Your task to perform on an android device: Search for razer naga on ebay, select the first entry, add it to the cart, then select checkout. Image 0: 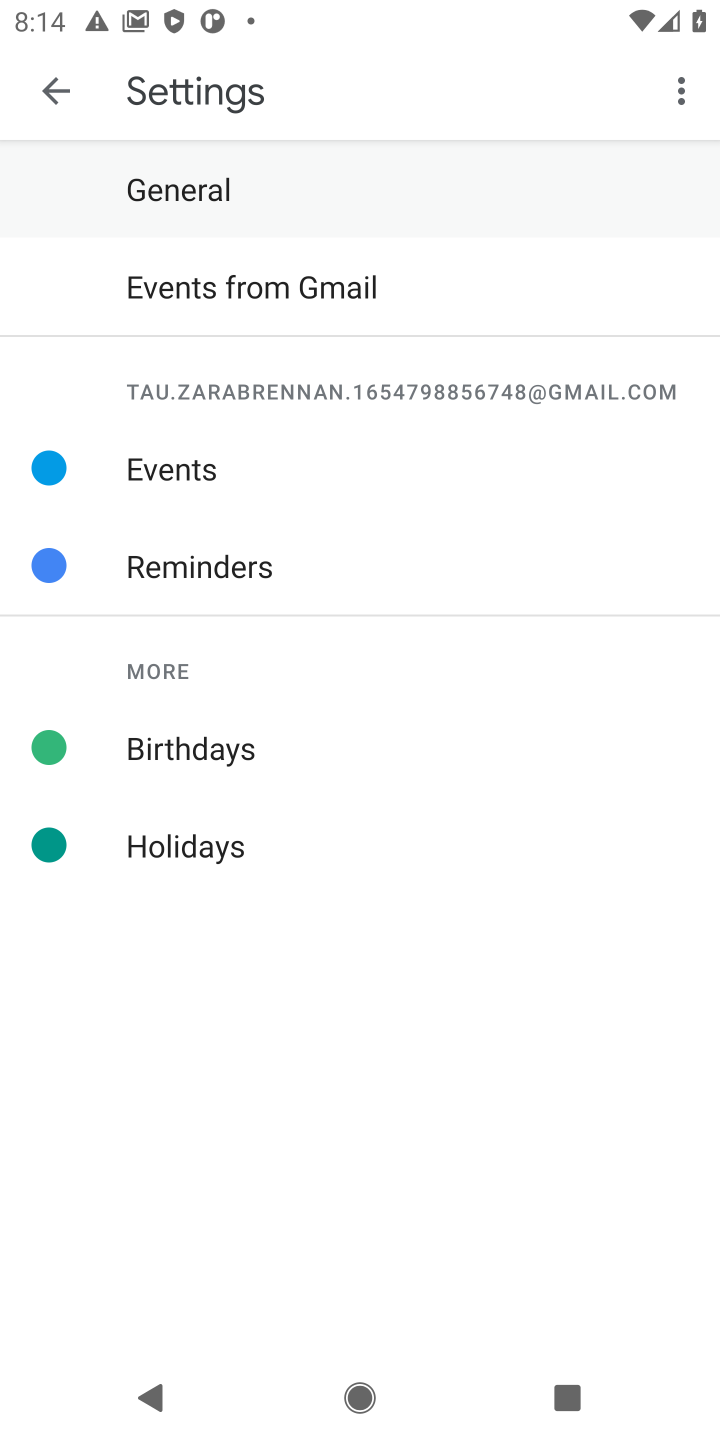
Step 0: press home button
Your task to perform on an android device: Search for razer naga on ebay, select the first entry, add it to the cart, then select checkout. Image 1: 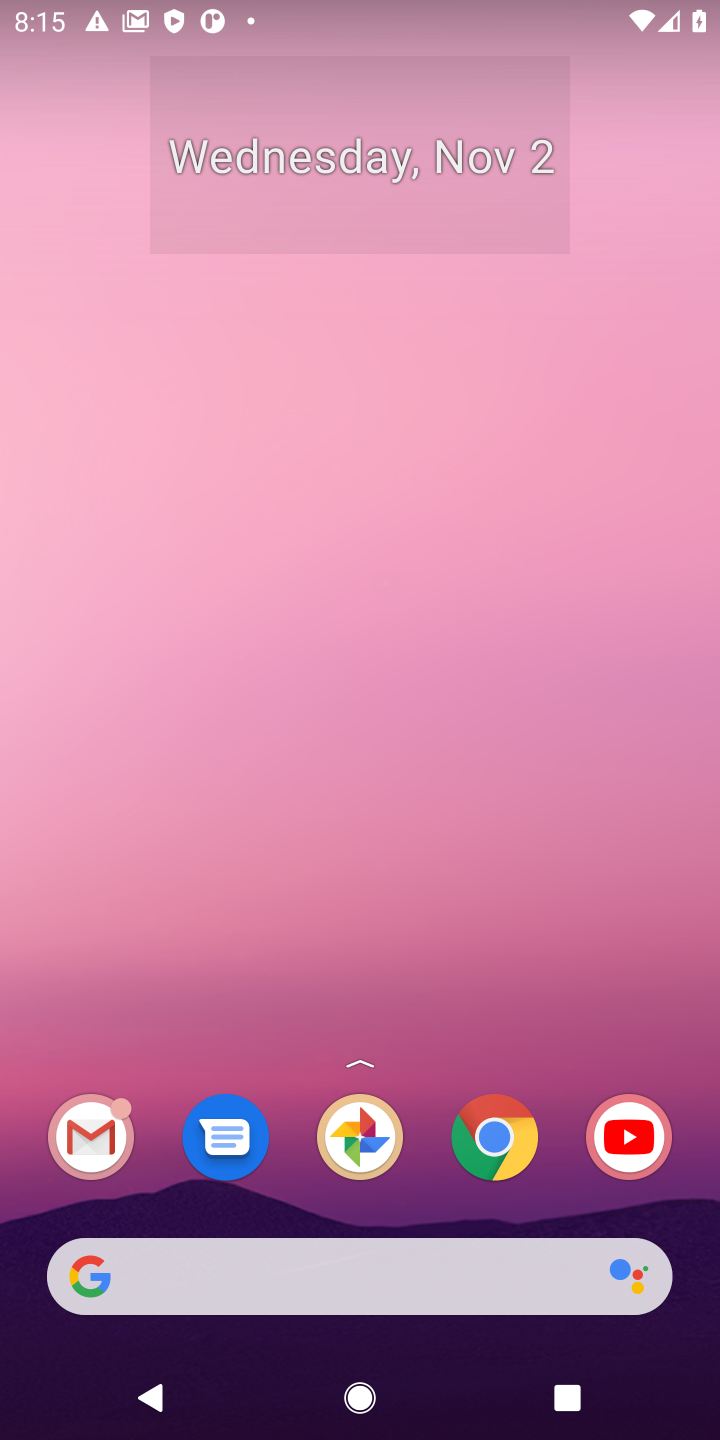
Step 1: click (492, 1132)
Your task to perform on an android device: Search for razer naga on ebay, select the first entry, add it to the cart, then select checkout. Image 2: 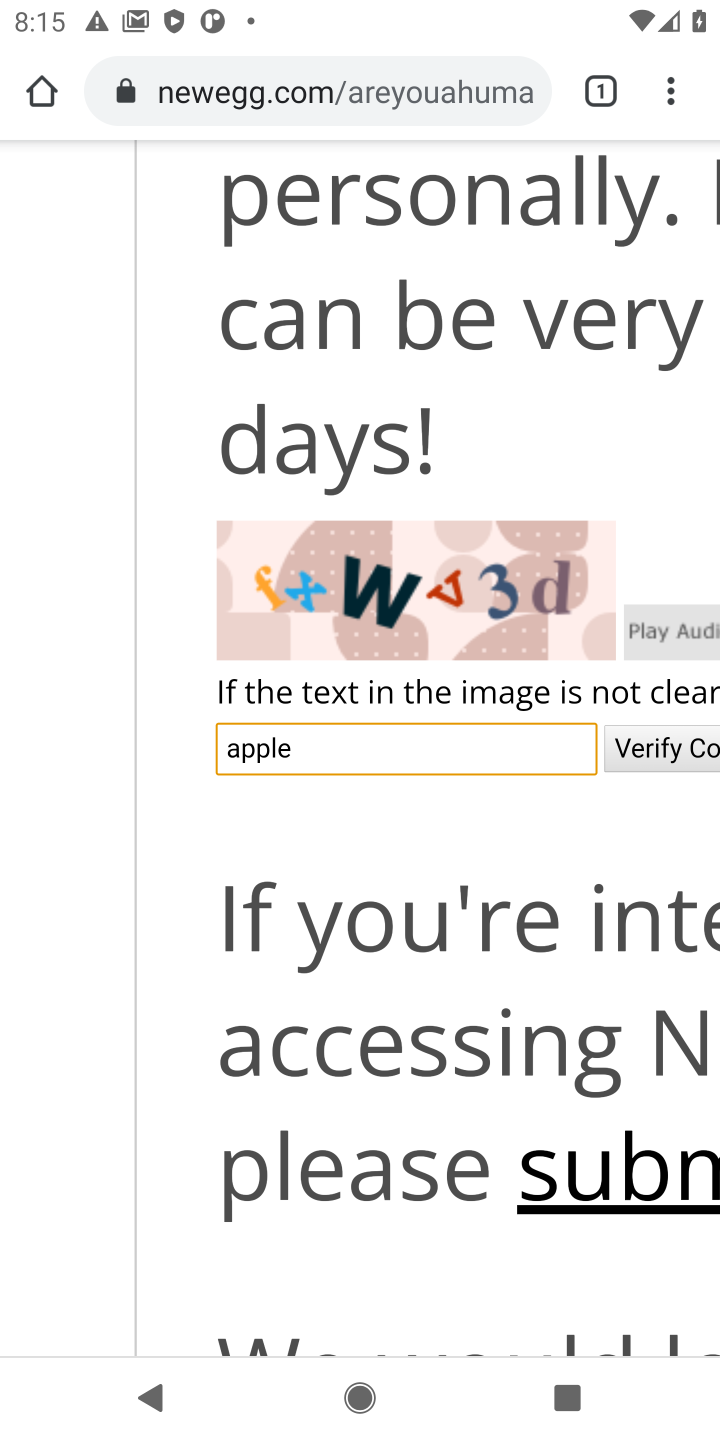
Step 2: click (384, 62)
Your task to perform on an android device: Search for razer naga on ebay, select the first entry, add it to the cart, then select checkout. Image 3: 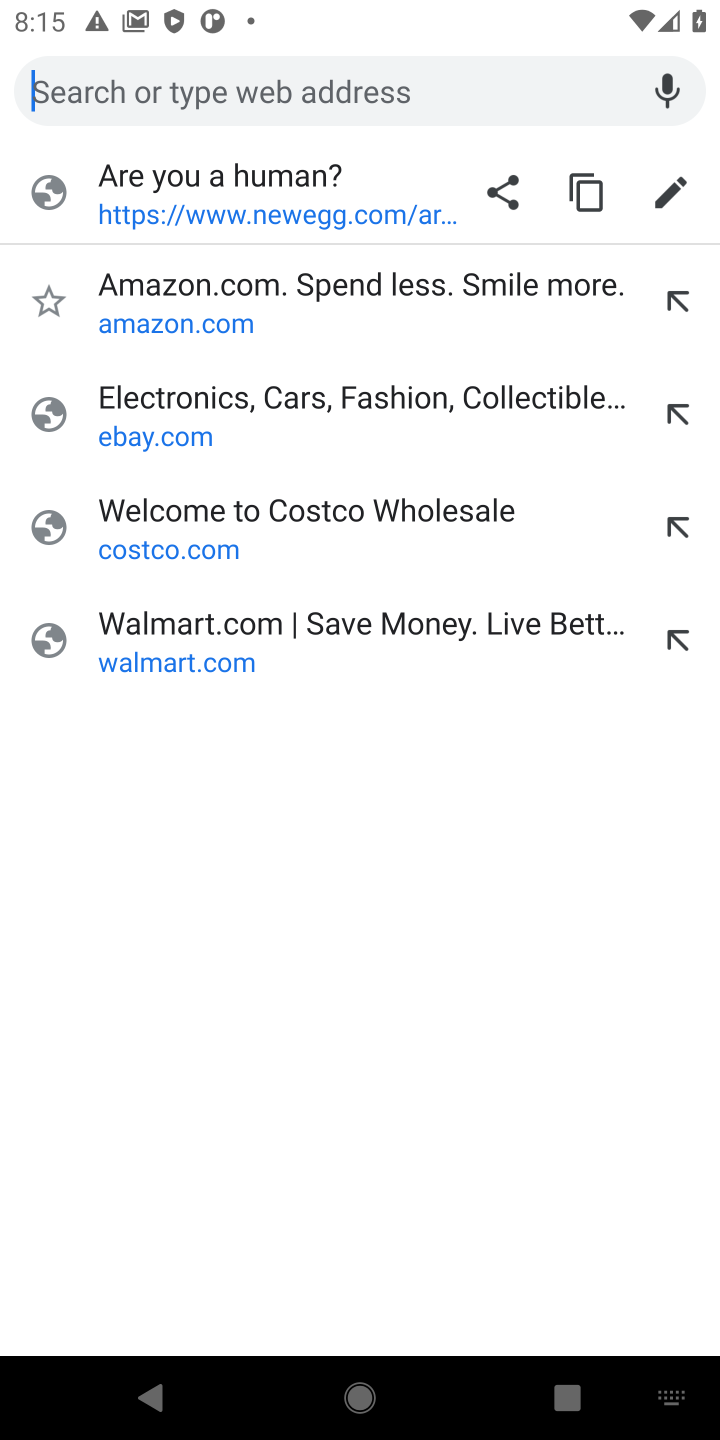
Step 3: click (119, 400)
Your task to perform on an android device: Search for razer naga on ebay, select the first entry, add it to the cart, then select checkout. Image 4: 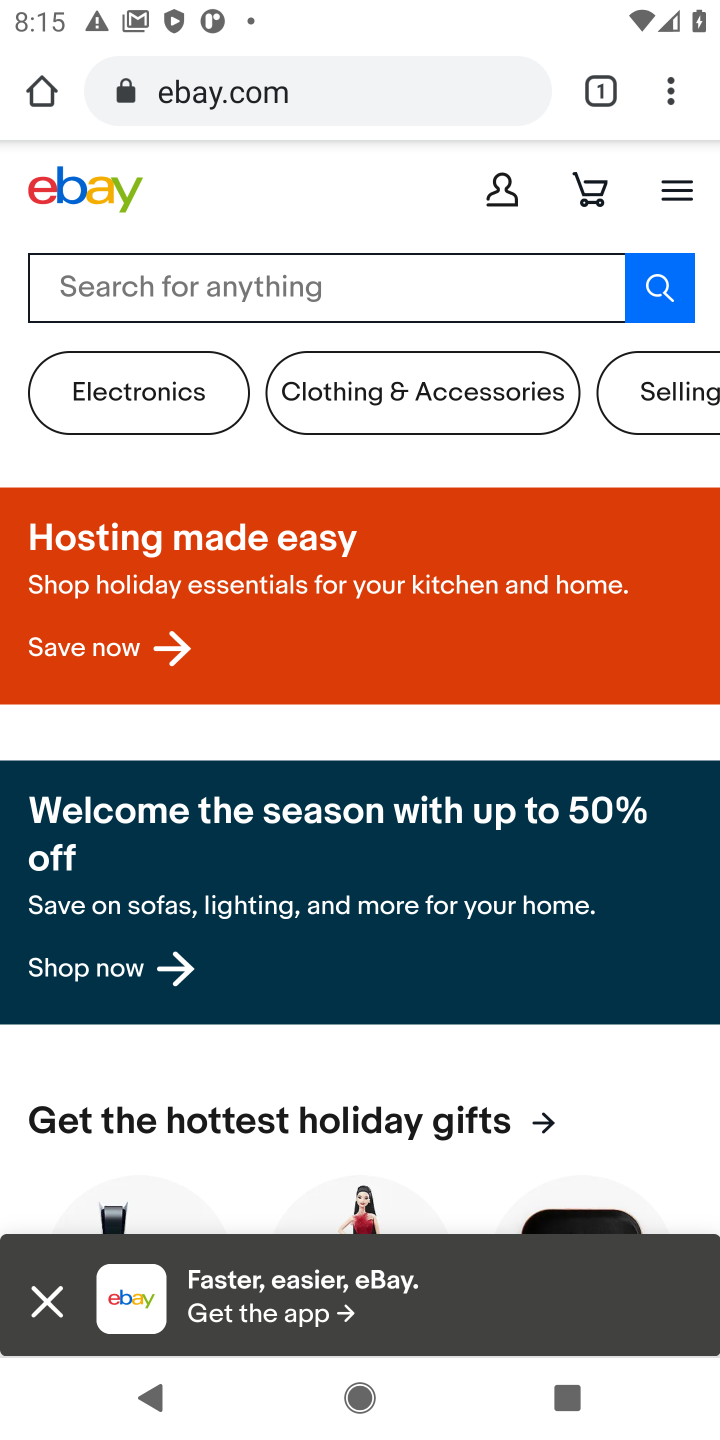
Step 4: click (211, 281)
Your task to perform on an android device: Search for razer naga on ebay, select the first entry, add it to the cart, then select checkout. Image 5: 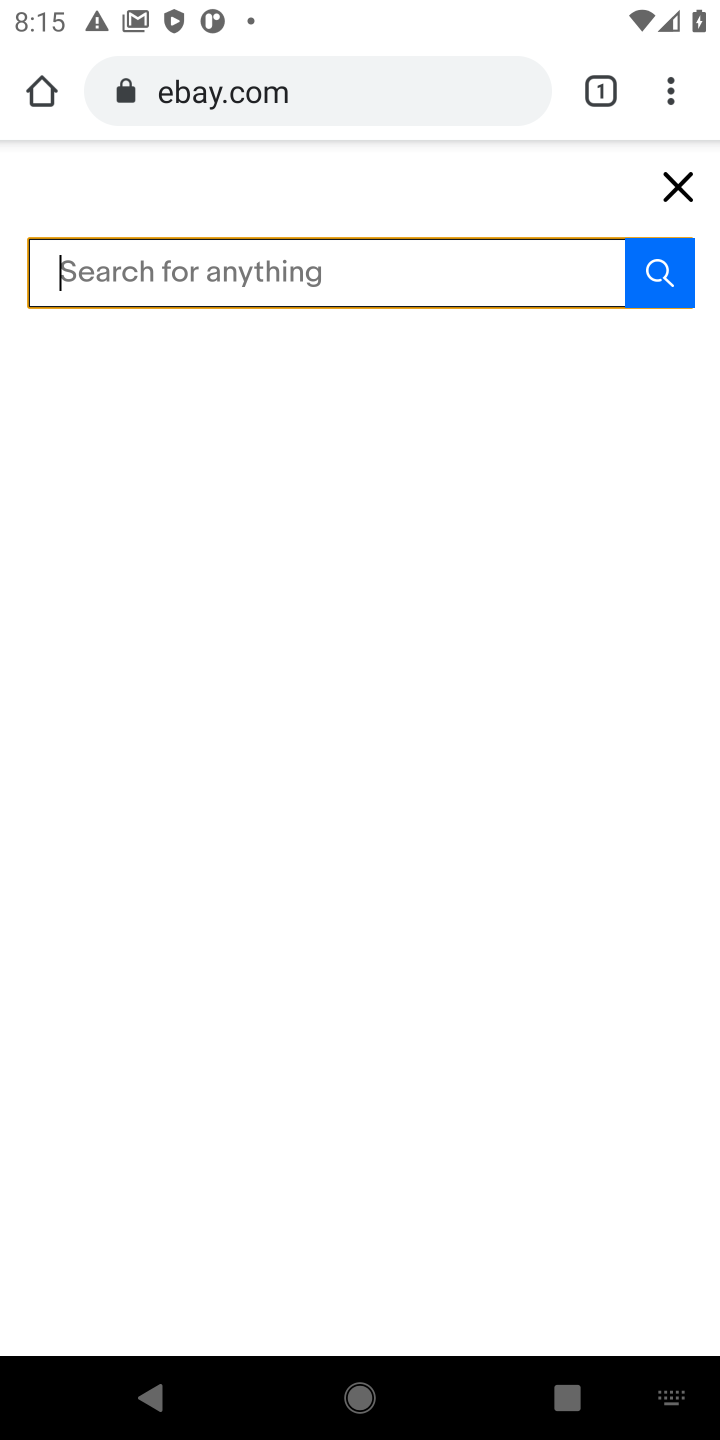
Step 5: type "razer naga"
Your task to perform on an android device: Search for razer naga on ebay, select the first entry, add it to the cart, then select checkout. Image 6: 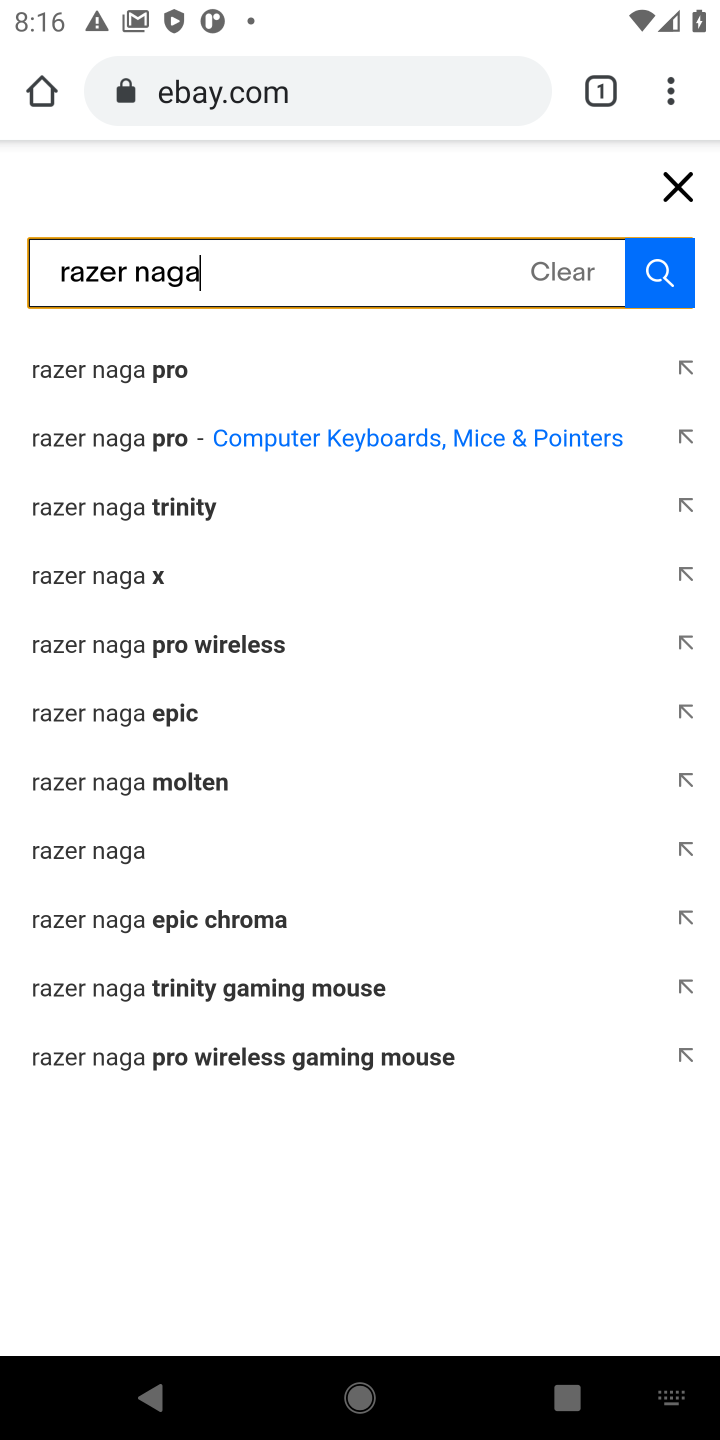
Step 6: click (101, 372)
Your task to perform on an android device: Search for razer naga on ebay, select the first entry, add it to the cart, then select checkout. Image 7: 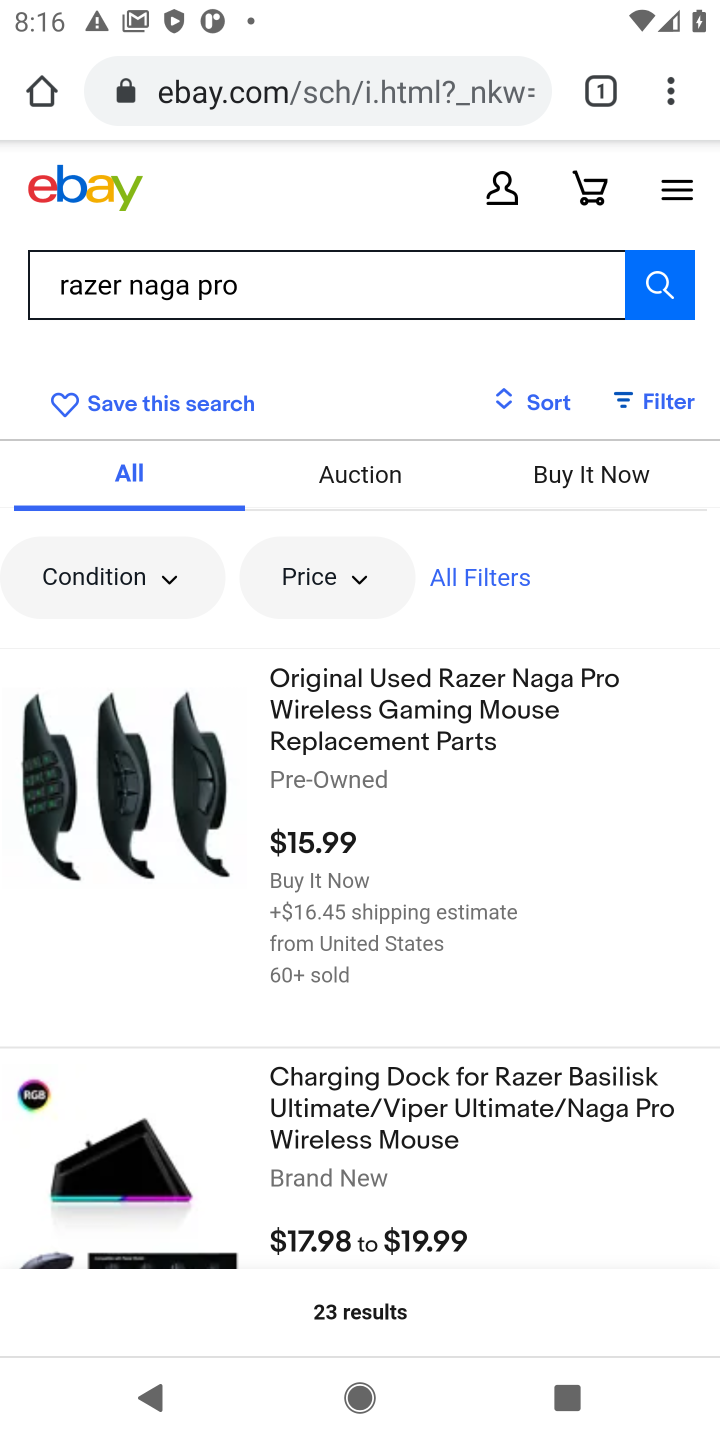
Step 7: click (428, 686)
Your task to perform on an android device: Search for razer naga on ebay, select the first entry, add it to the cart, then select checkout. Image 8: 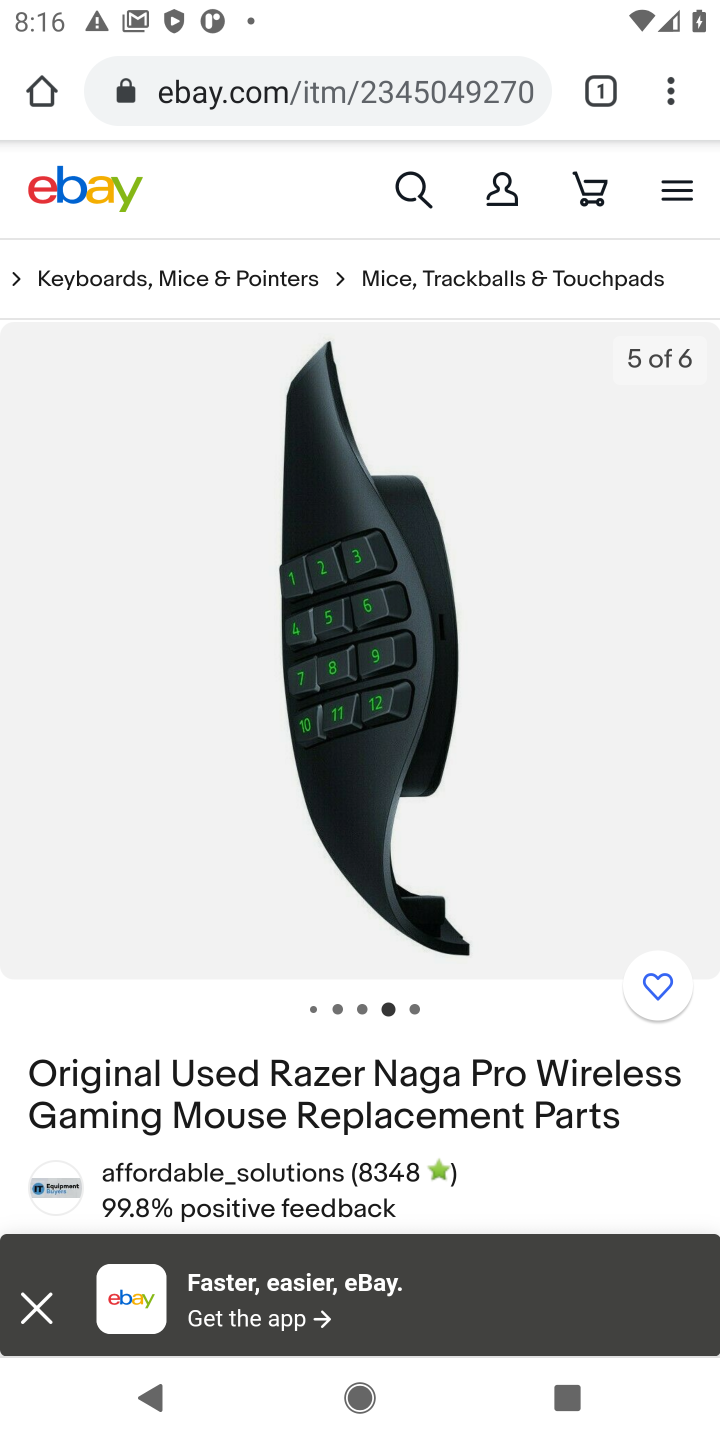
Step 8: drag from (450, 1065) to (427, 473)
Your task to perform on an android device: Search for razer naga on ebay, select the first entry, add it to the cart, then select checkout. Image 9: 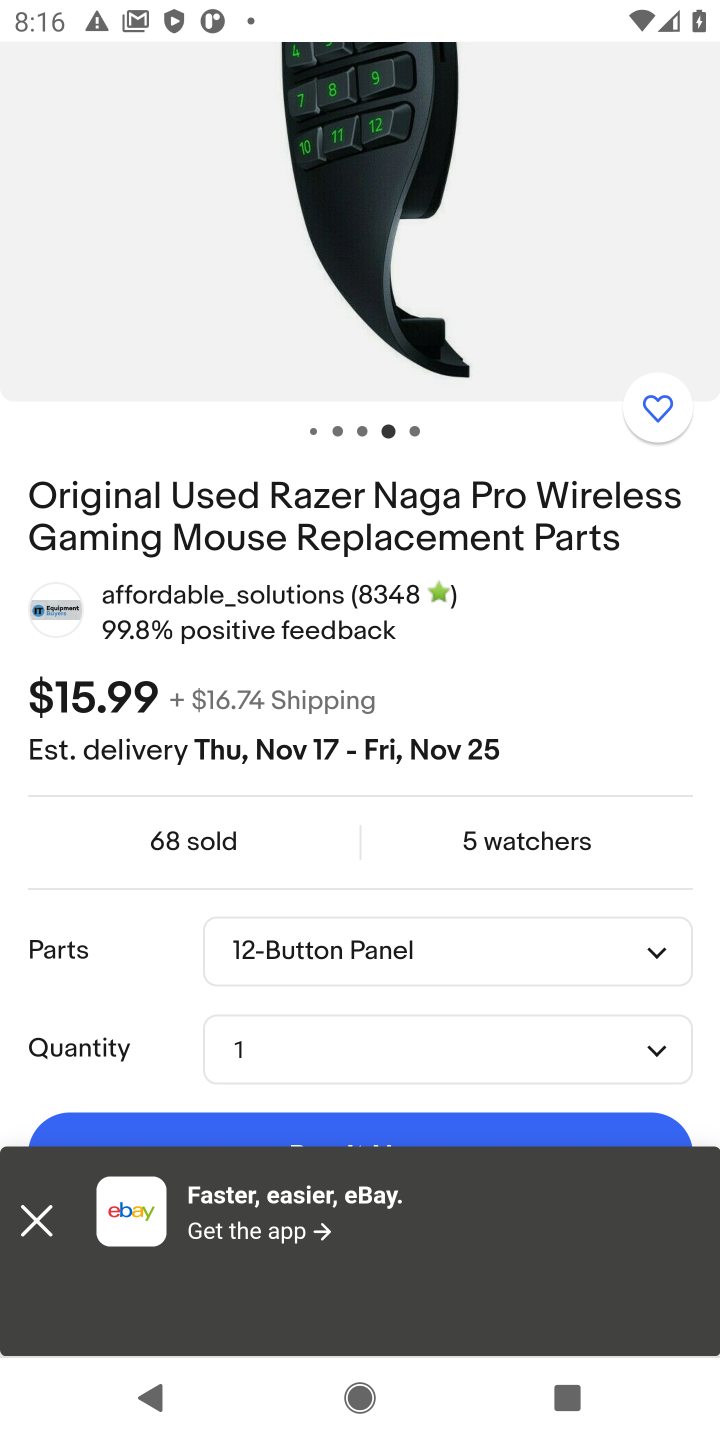
Step 9: drag from (462, 1005) to (483, 351)
Your task to perform on an android device: Search for razer naga on ebay, select the first entry, add it to the cart, then select checkout. Image 10: 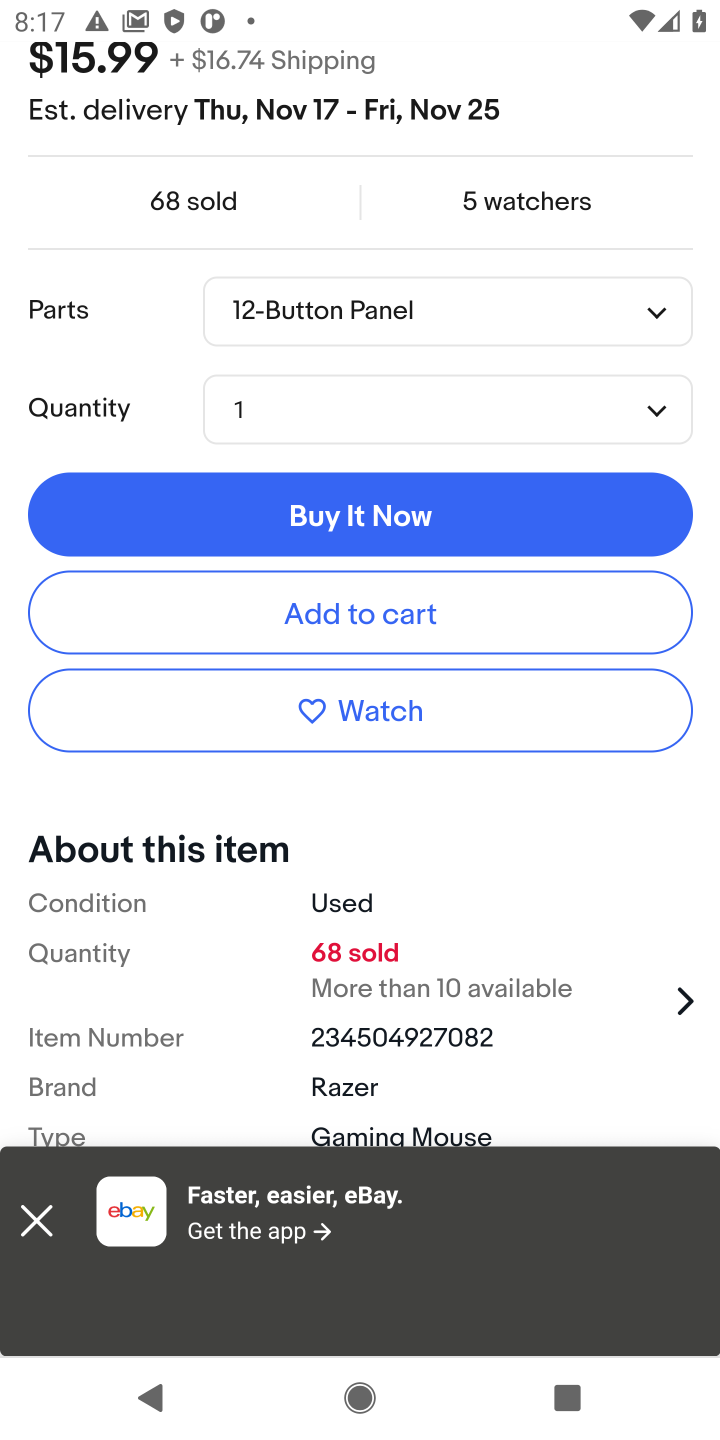
Step 10: click (338, 617)
Your task to perform on an android device: Search for razer naga on ebay, select the first entry, add it to the cart, then select checkout. Image 11: 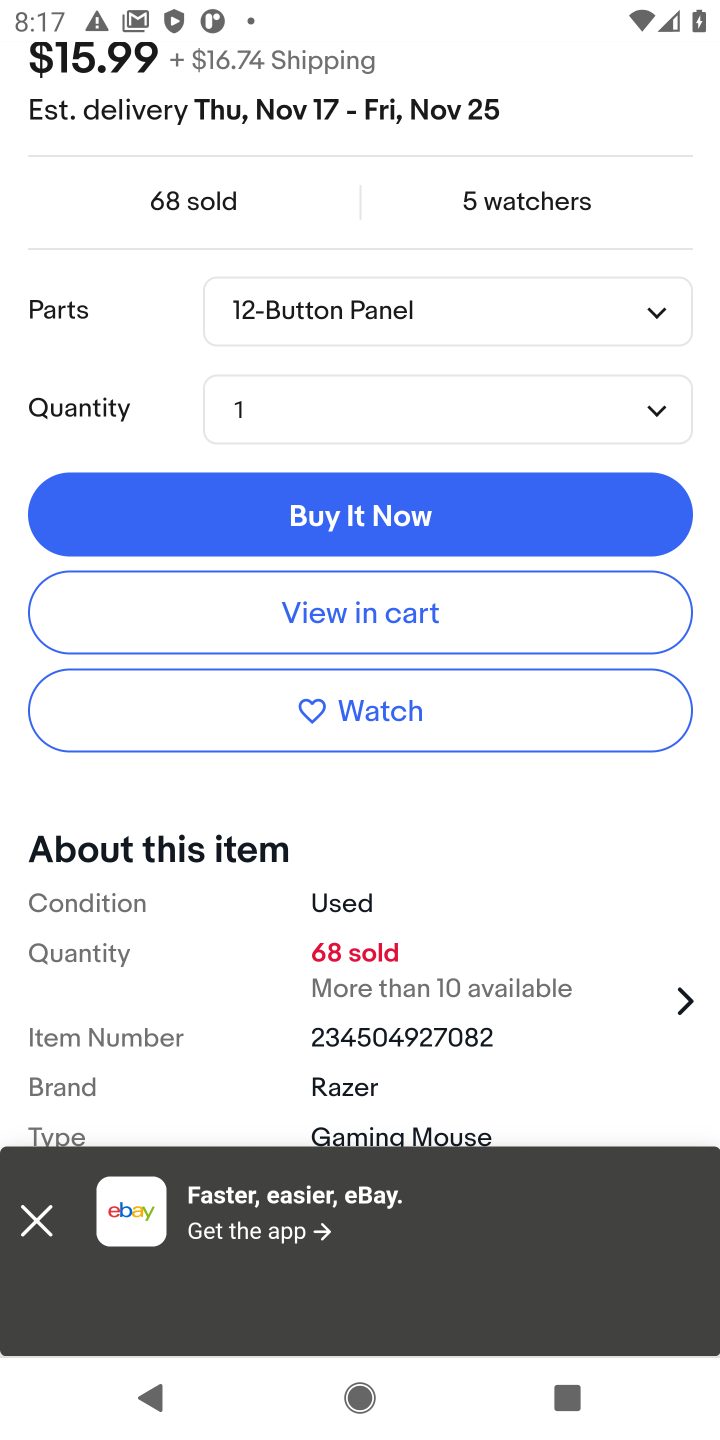
Step 11: click (358, 615)
Your task to perform on an android device: Search for razer naga on ebay, select the first entry, add it to the cart, then select checkout. Image 12: 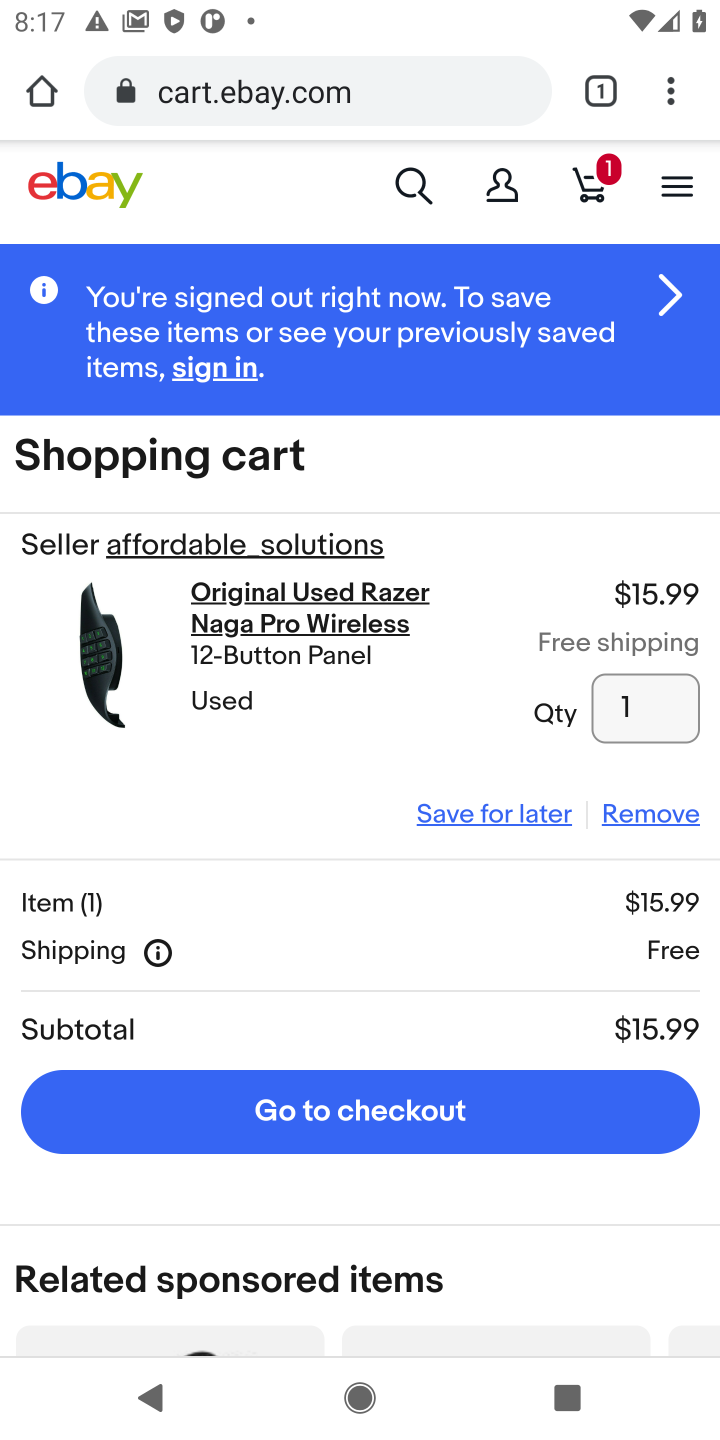
Step 12: click (345, 1117)
Your task to perform on an android device: Search for razer naga on ebay, select the first entry, add it to the cart, then select checkout. Image 13: 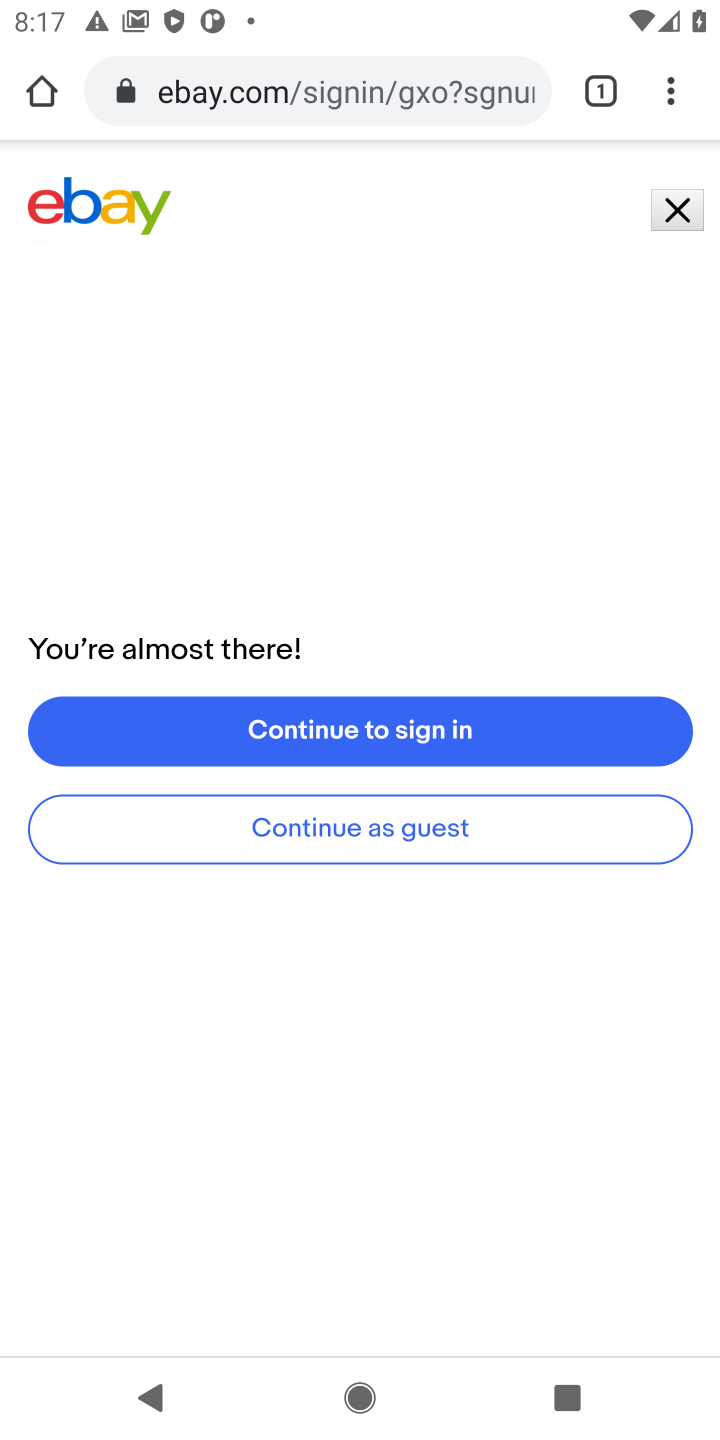
Step 13: task complete